Your task to perform on an android device: read, delete, or share a saved page in the chrome app Image 0: 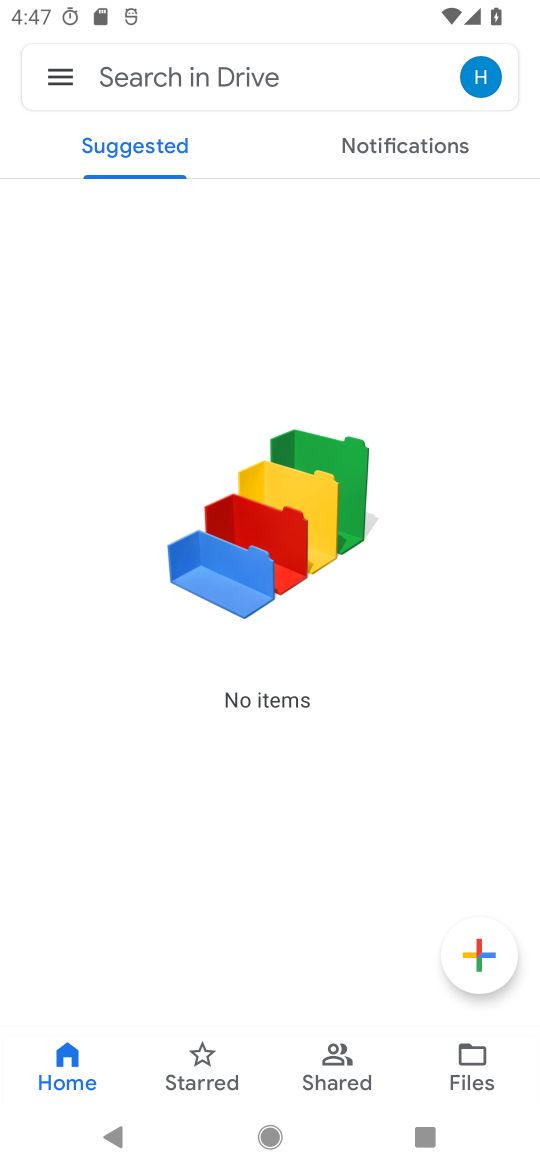
Step 0: press home button
Your task to perform on an android device: read, delete, or share a saved page in the chrome app Image 1: 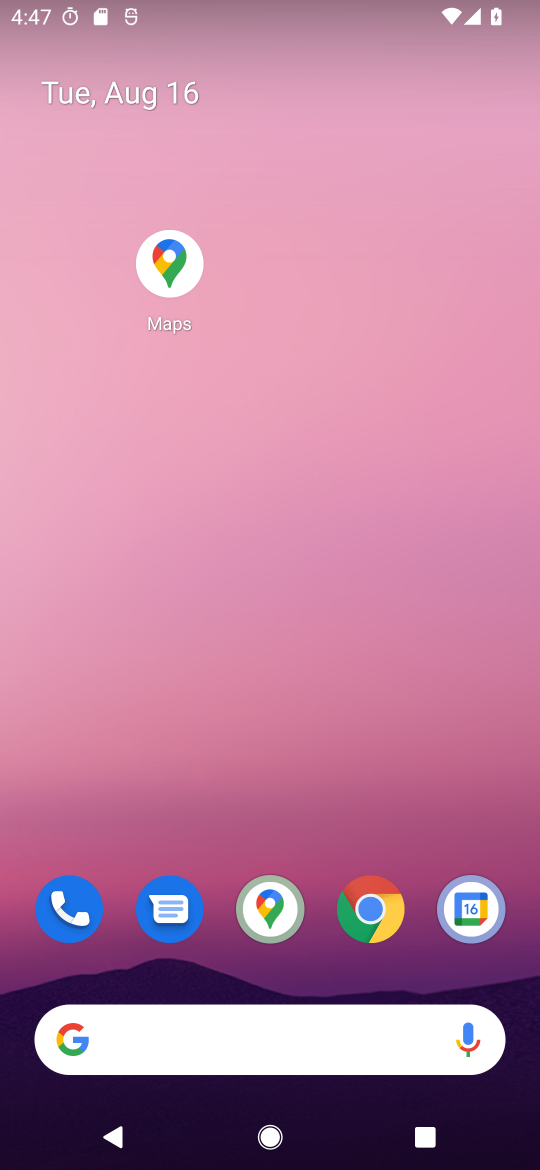
Step 1: click (369, 934)
Your task to perform on an android device: read, delete, or share a saved page in the chrome app Image 2: 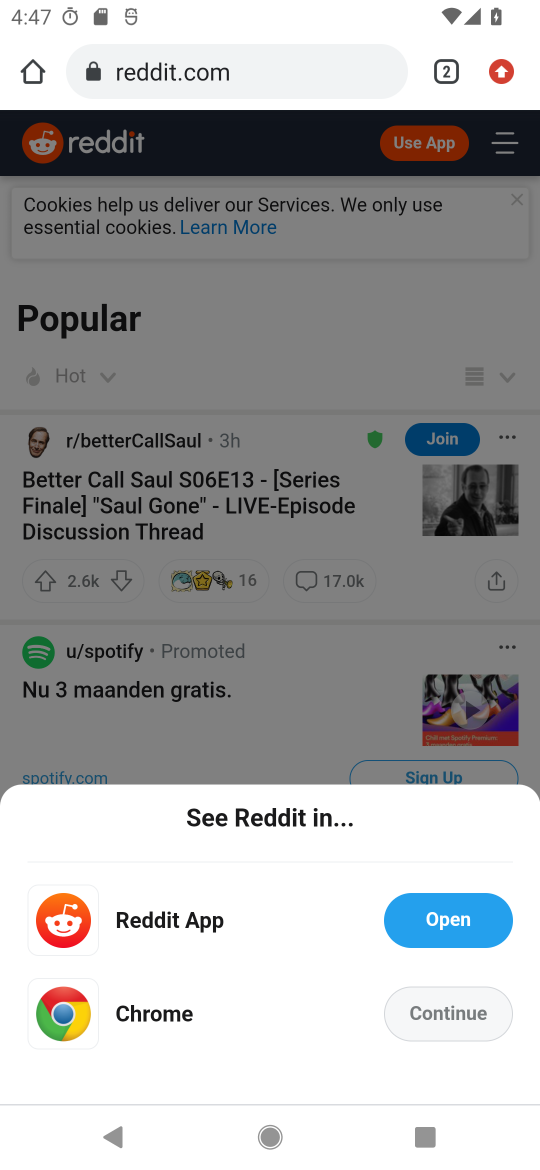
Step 2: click (437, 1006)
Your task to perform on an android device: read, delete, or share a saved page in the chrome app Image 3: 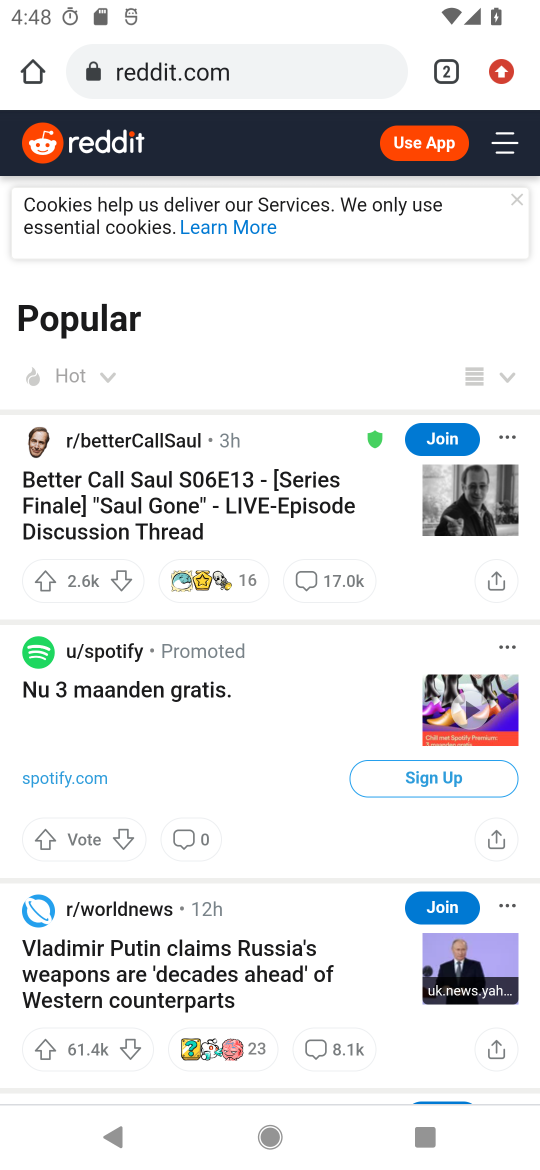
Step 3: task complete